Your task to perform on an android device: make emails show in primary in the gmail app Image 0: 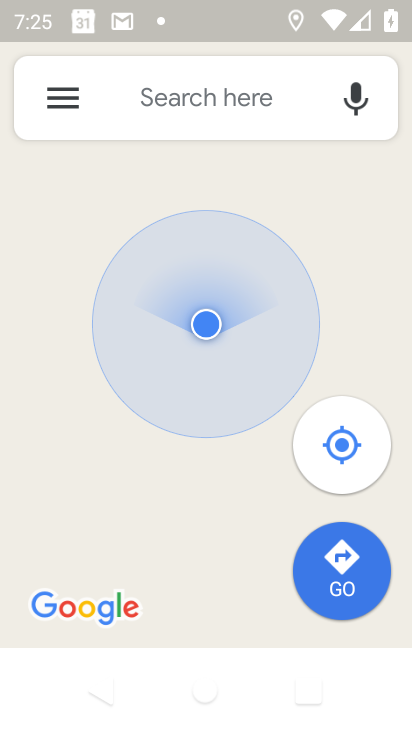
Step 0: press home button
Your task to perform on an android device: make emails show in primary in the gmail app Image 1: 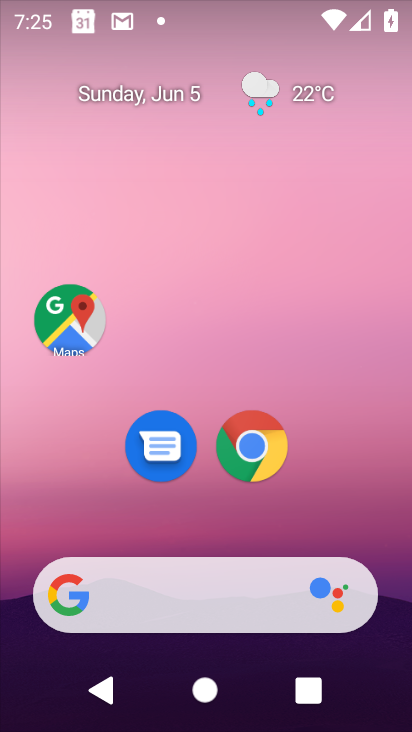
Step 1: drag from (203, 469) to (287, 86)
Your task to perform on an android device: make emails show in primary in the gmail app Image 2: 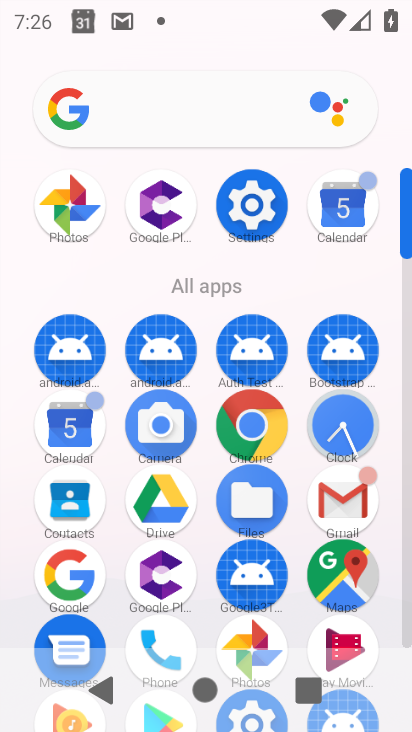
Step 2: click (343, 493)
Your task to perform on an android device: make emails show in primary in the gmail app Image 3: 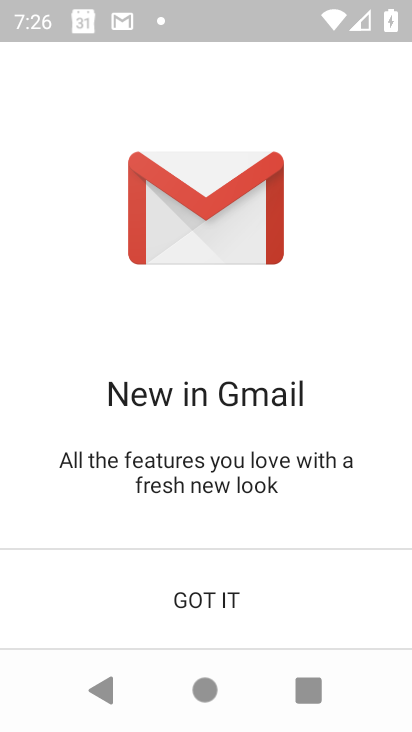
Step 3: click (211, 602)
Your task to perform on an android device: make emails show in primary in the gmail app Image 4: 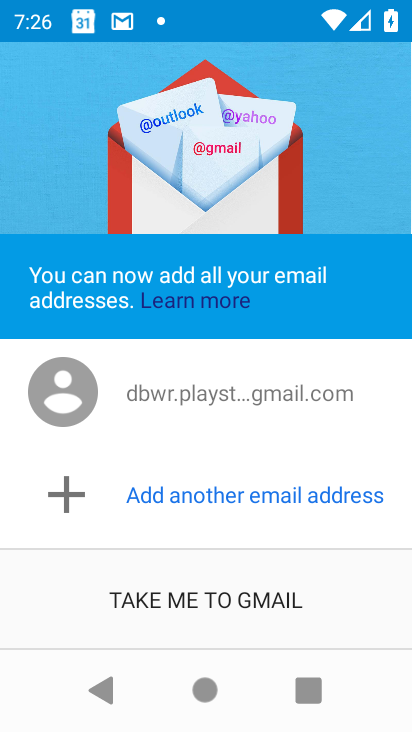
Step 4: click (228, 618)
Your task to perform on an android device: make emails show in primary in the gmail app Image 5: 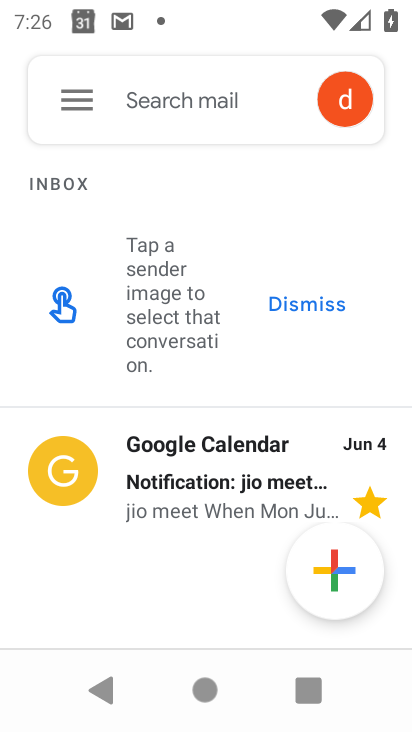
Step 5: click (66, 98)
Your task to perform on an android device: make emails show in primary in the gmail app Image 6: 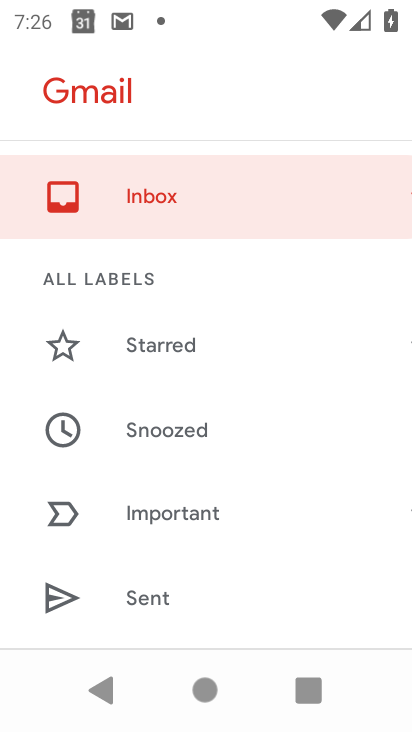
Step 6: drag from (214, 553) to (350, 133)
Your task to perform on an android device: make emails show in primary in the gmail app Image 7: 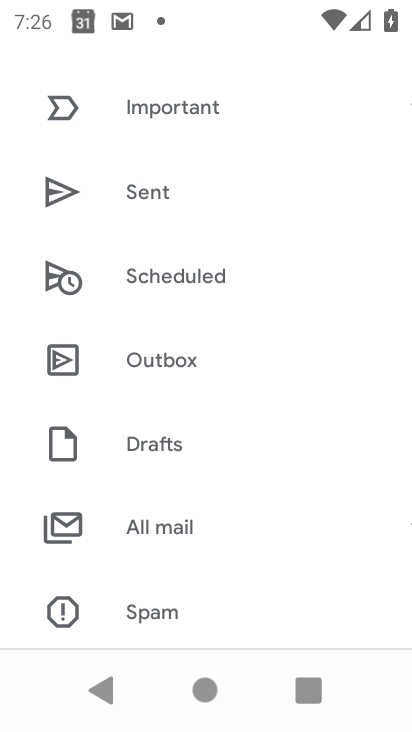
Step 7: drag from (259, 595) to (407, 199)
Your task to perform on an android device: make emails show in primary in the gmail app Image 8: 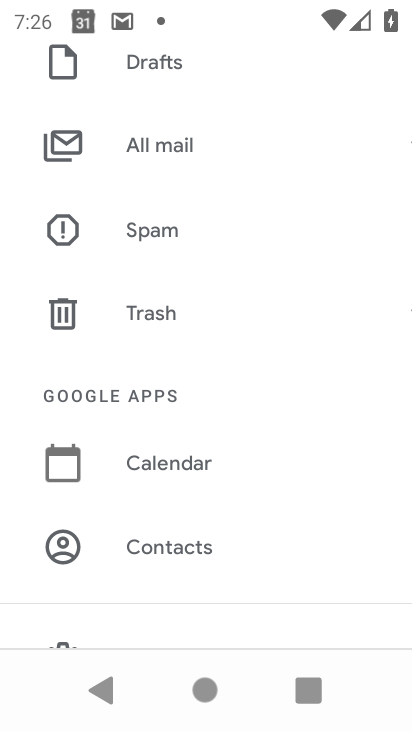
Step 8: drag from (233, 603) to (344, 296)
Your task to perform on an android device: make emails show in primary in the gmail app Image 9: 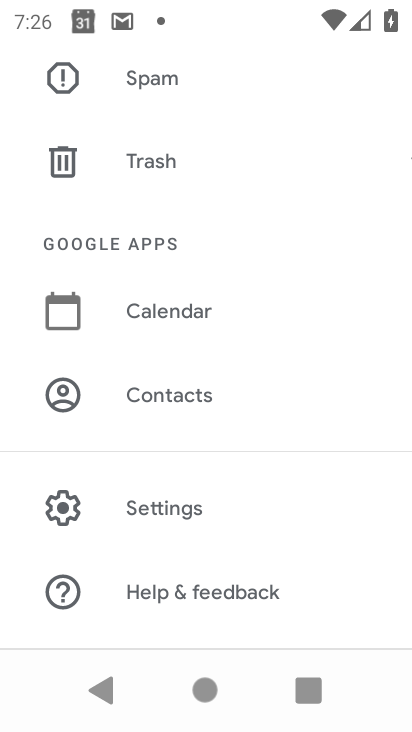
Step 9: click (195, 504)
Your task to perform on an android device: make emails show in primary in the gmail app Image 10: 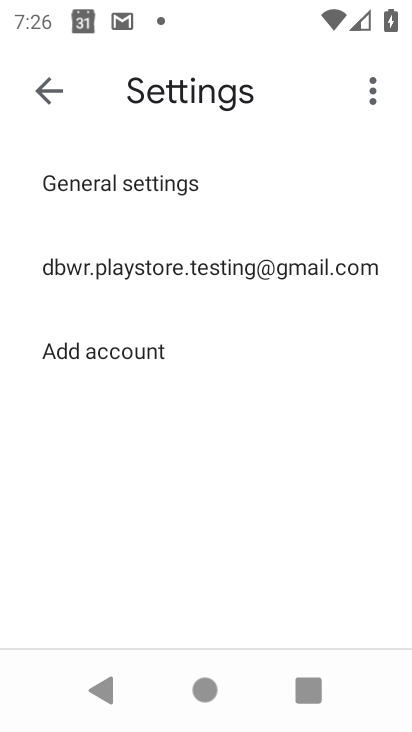
Step 10: click (121, 276)
Your task to perform on an android device: make emails show in primary in the gmail app Image 11: 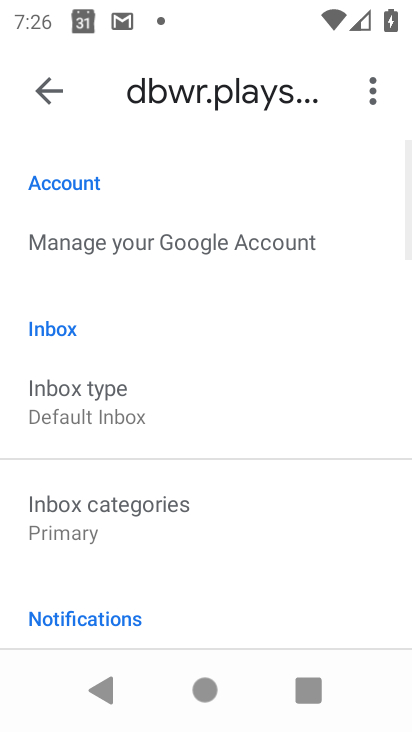
Step 11: click (94, 411)
Your task to perform on an android device: make emails show in primary in the gmail app Image 12: 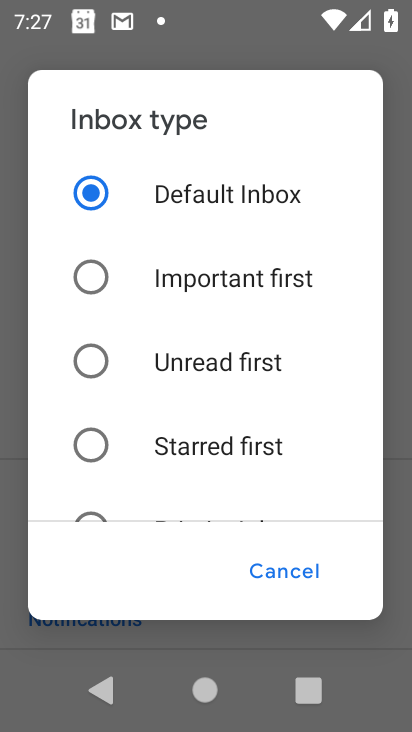
Step 12: click (292, 573)
Your task to perform on an android device: make emails show in primary in the gmail app Image 13: 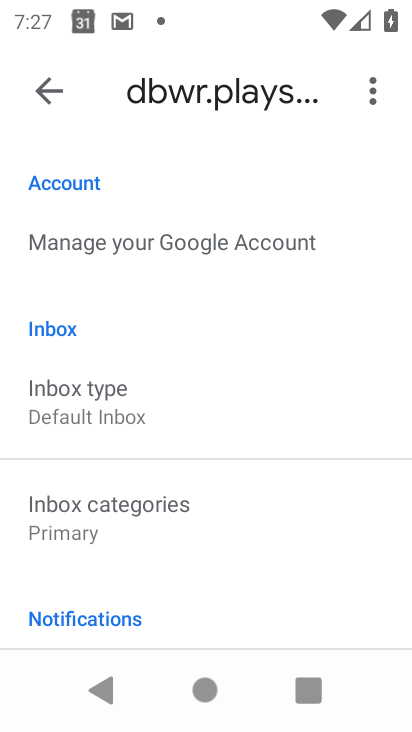
Step 13: click (36, 81)
Your task to perform on an android device: make emails show in primary in the gmail app Image 14: 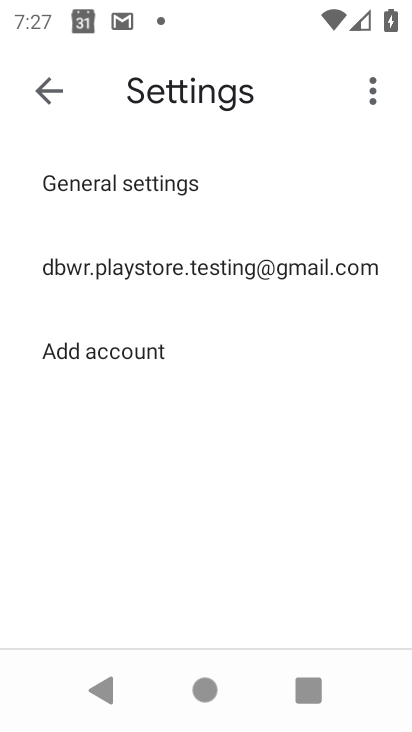
Step 14: click (54, 85)
Your task to perform on an android device: make emails show in primary in the gmail app Image 15: 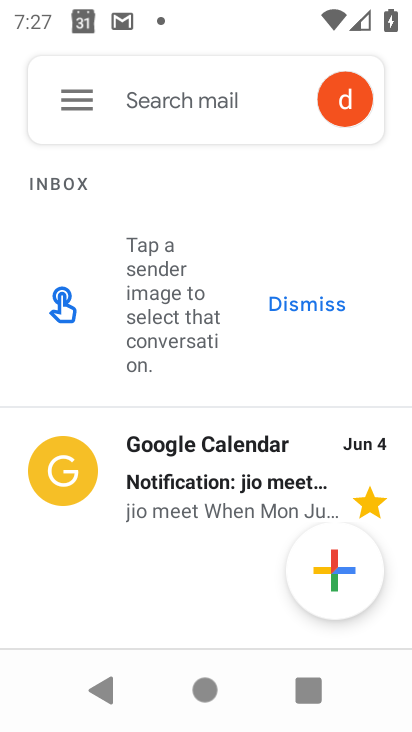
Step 15: click (68, 96)
Your task to perform on an android device: make emails show in primary in the gmail app Image 16: 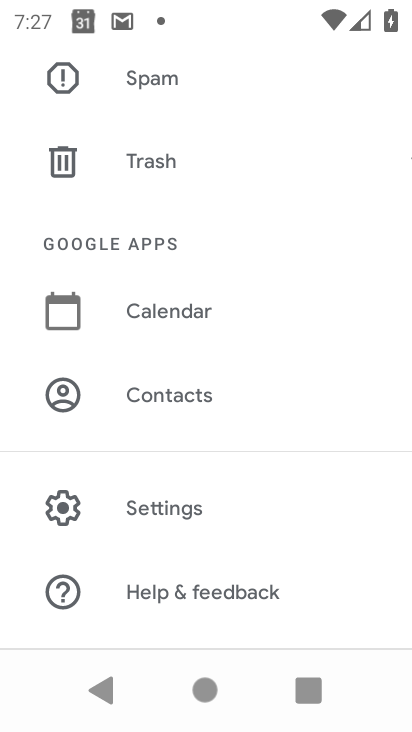
Step 16: task complete